Your task to perform on an android device: Open location settings Image 0: 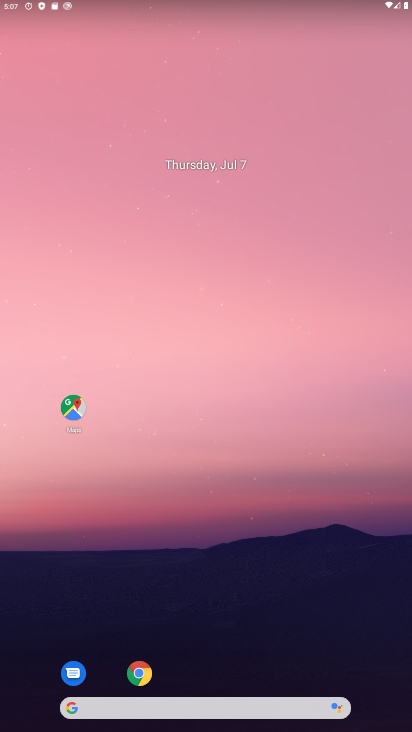
Step 0: drag from (266, 688) to (316, 6)
Your task to perform on an android device: Open location settings Image 1: 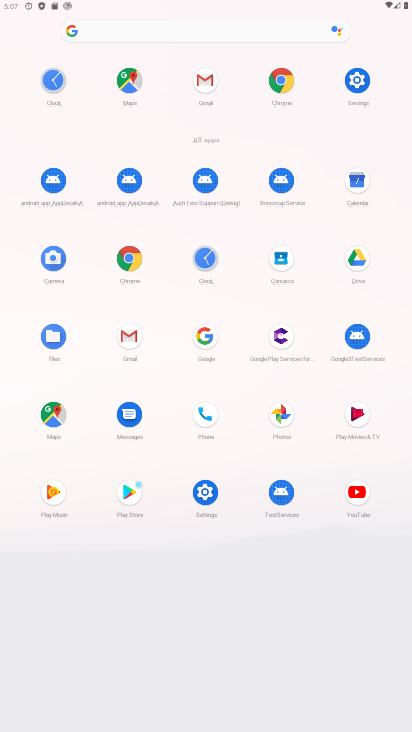
Step 1: click (362, 77)
Your task to perform on an android device: Open location settings Image 2: 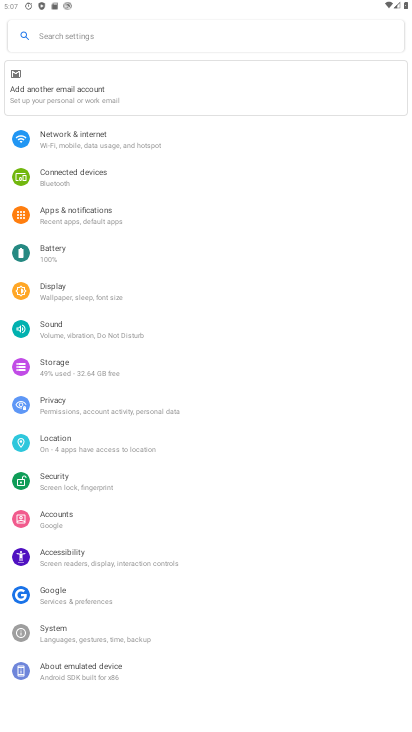
Step 2: click (73, 444)
Your task to perform on an android device: Open location settings Image 3: 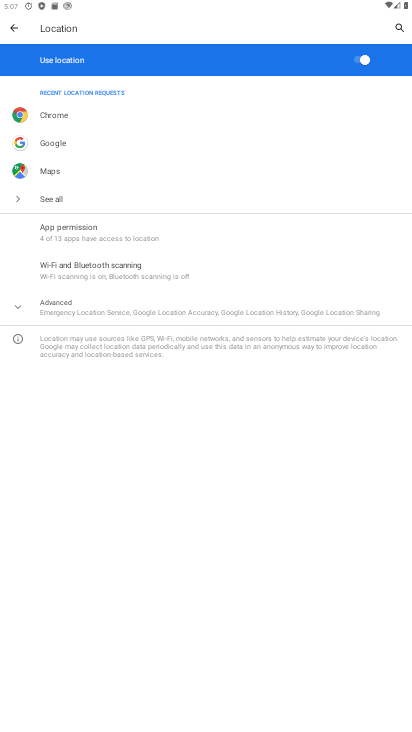
Step 3: task complete